Your task to perform on an android device: When is my next meeting? Image 0: 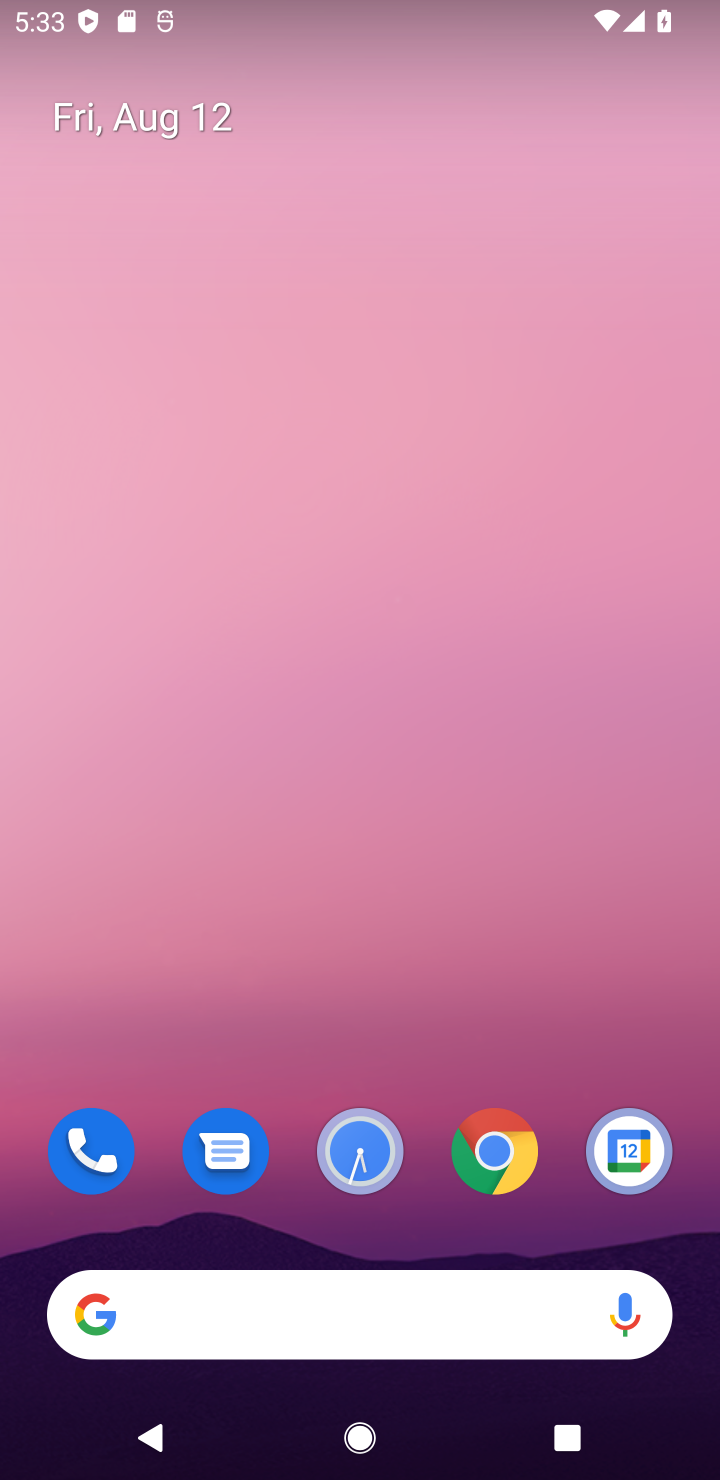
Step 0: drag from (365, 473) to (254, 8)
Your task to perform on an android device: When is my next meeting? Image 1: 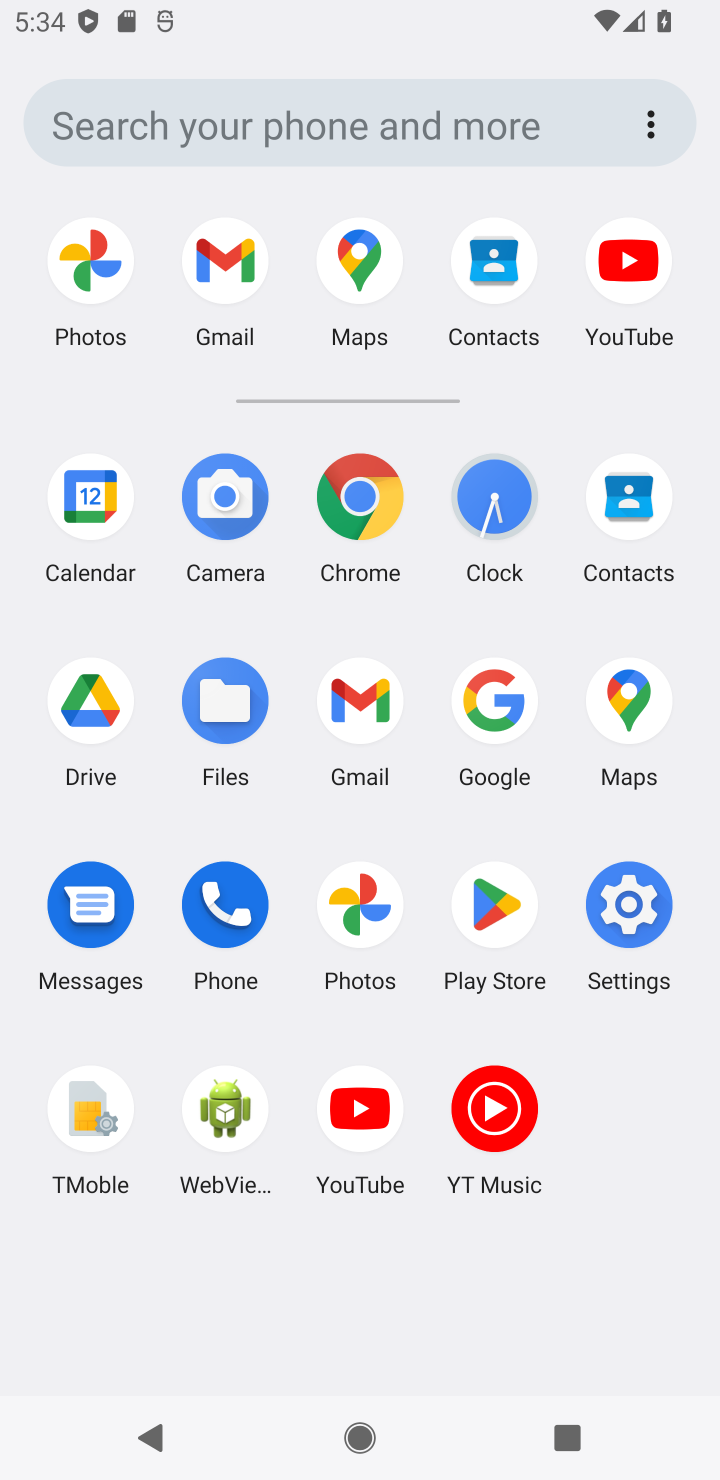
Step 1: click (86, 480)
Your task to perform on an android device: When is my next meeting? Image 2: 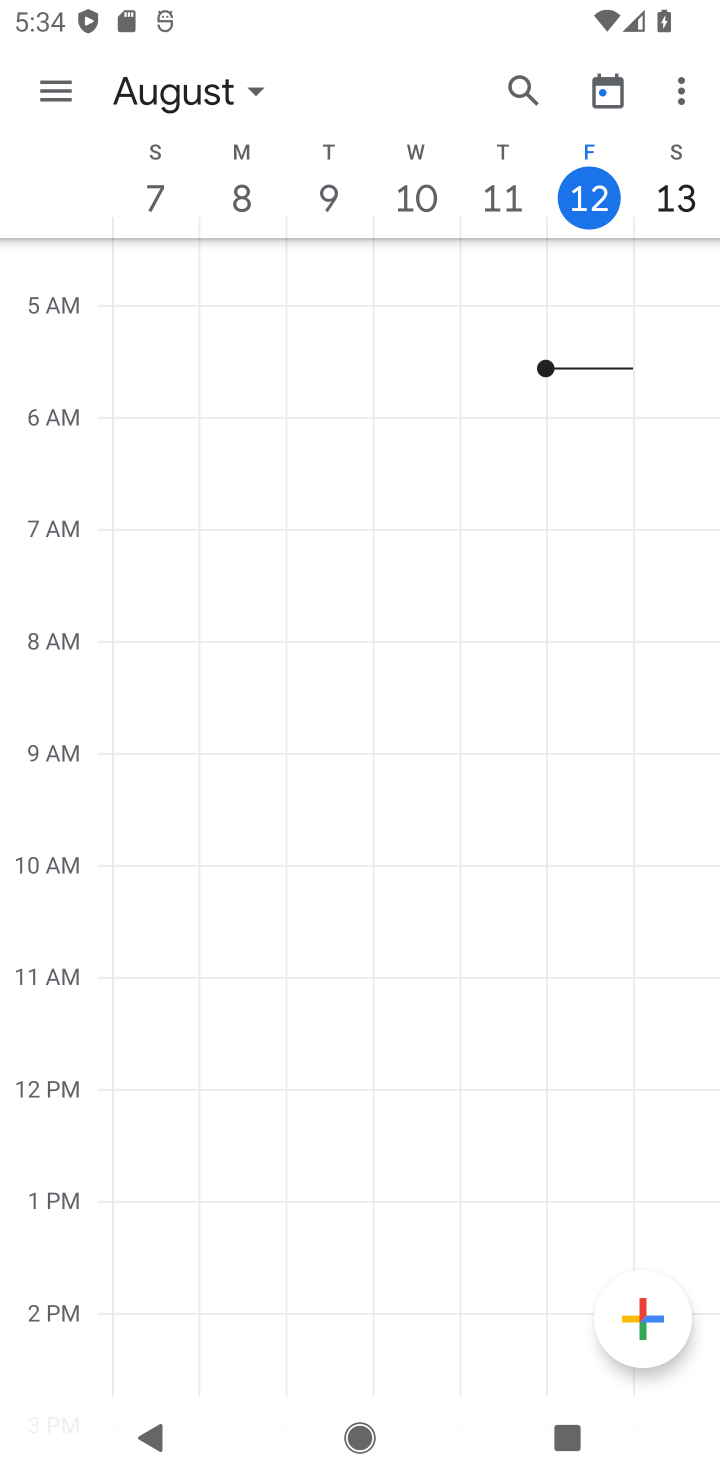
Step 2: click (593, 197)
Your task to perform on an android device: When is my next meeting? Image 3: 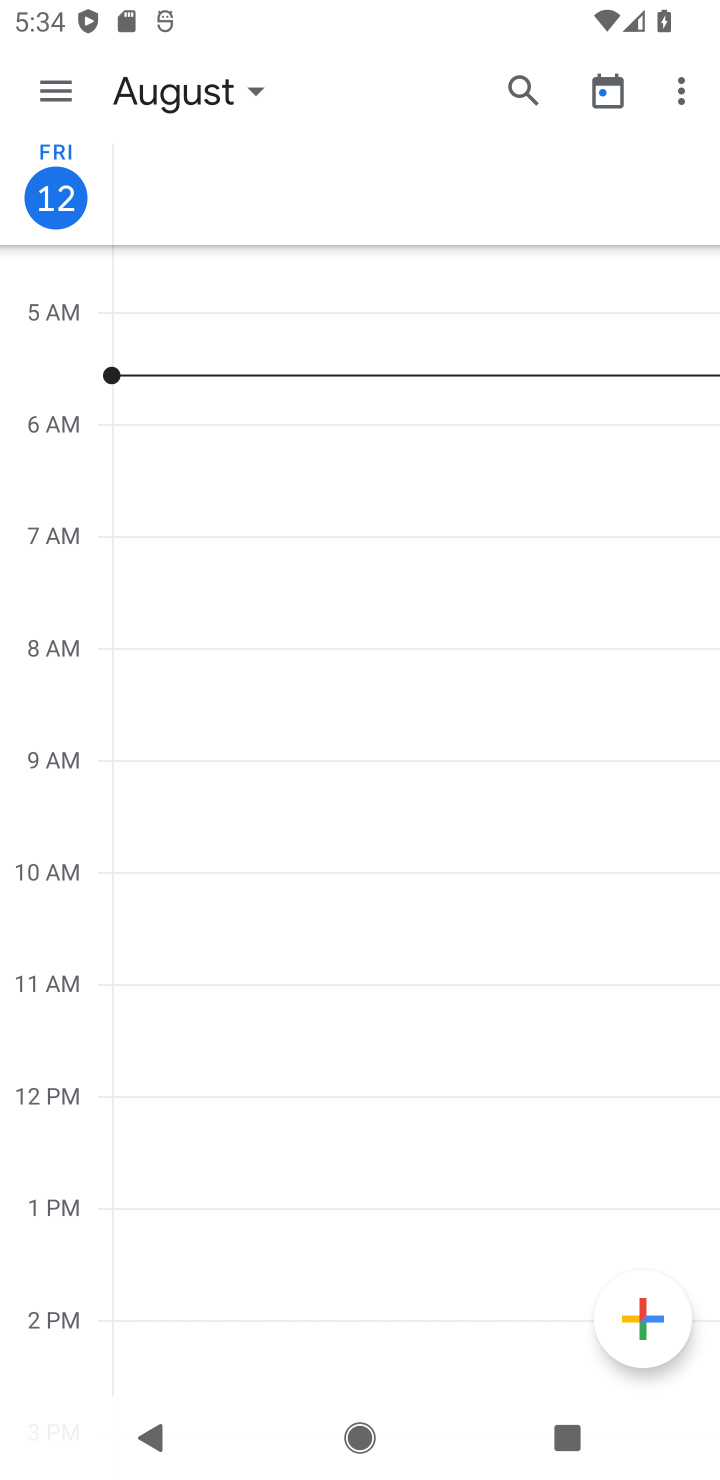
Step 3: task complete